Your task to perform on an android device: turn off javascript in the chrome app Image 0: 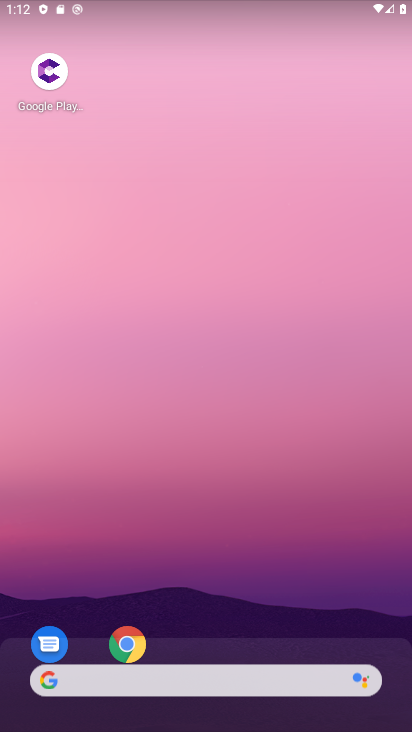
Step 0: drag from (310, 600) to (272, 145)
Your task to perform on an android device: turn off javascript in the chrome app Image 1: 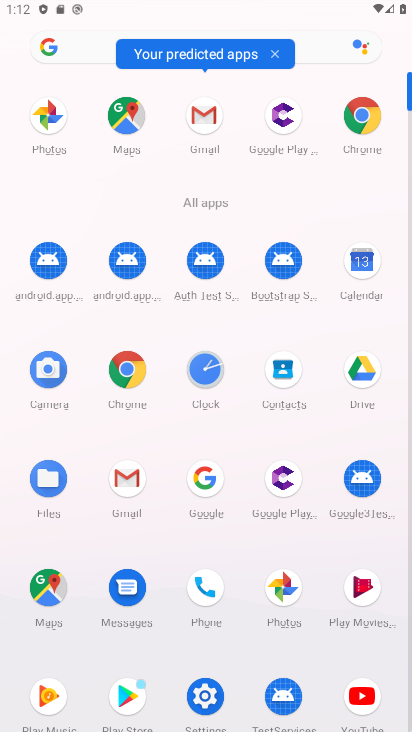
Step 1: click (133, 367)
Your task to perform on an android device: turn off javascript in the chrome app Image 2: 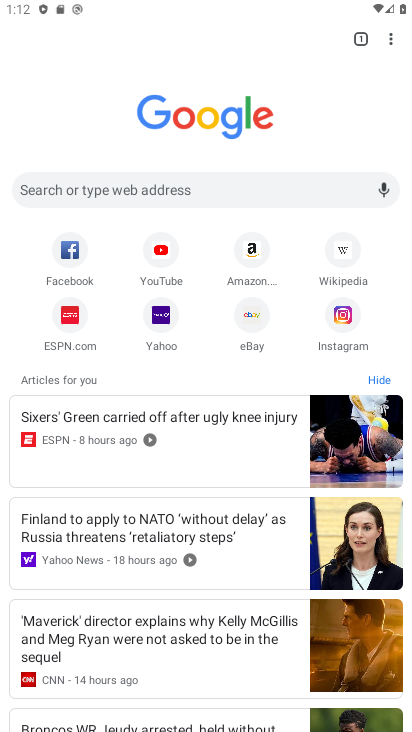
Step 2: drag from (393, 35) to (256, 324)
Your task to perform on an android device: turn off javascript in the chrome app Image 3: 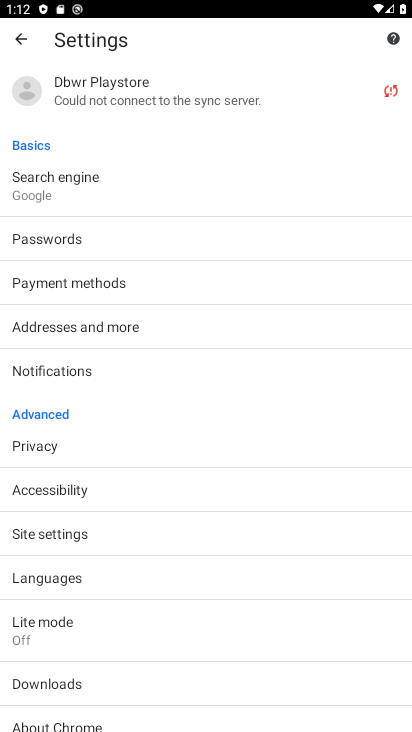
Step 3: click (72, 539)
Your task to perform on an android device: turn off javascript in the chrome app Image 4: 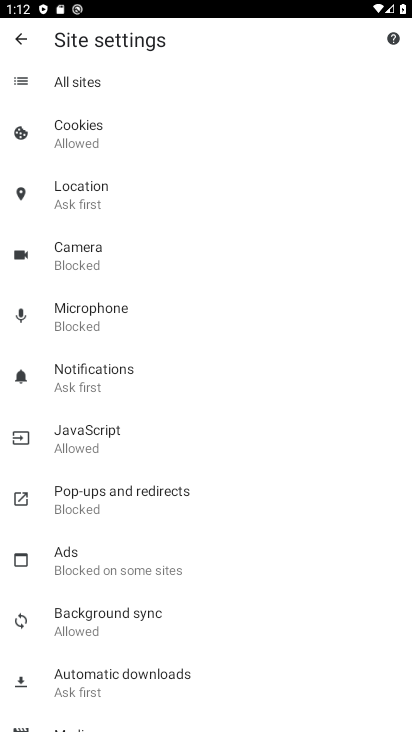
Step 4: click (122, 446)
Your task to perform on an android device: turn off javascript in the chrome app Image 5: 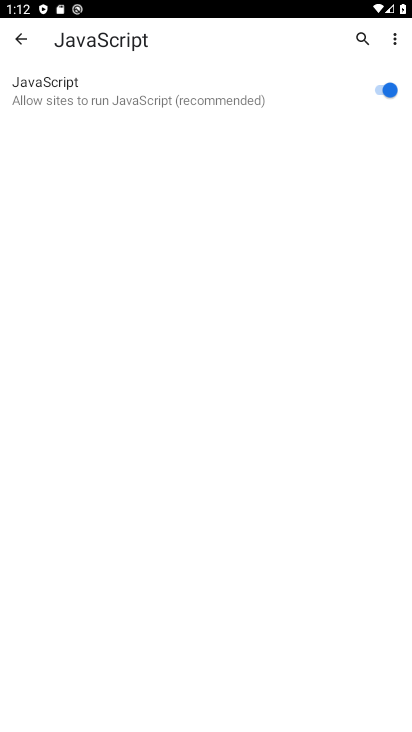
Step 5: click (371, 87)
Your task to perform on an android device: turn off javascript in the chrome app Image 6: 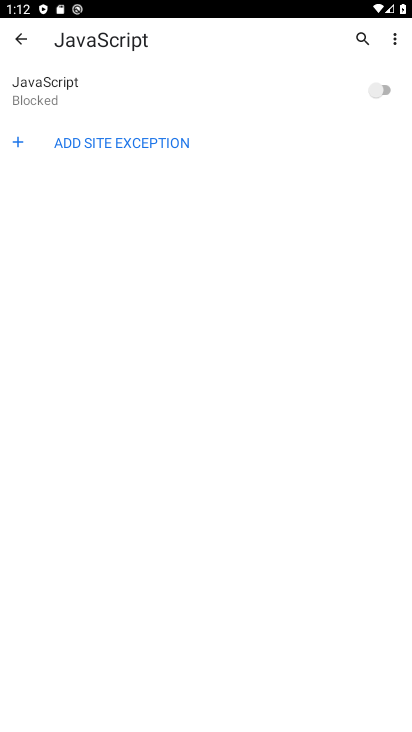
Step 6: task complete